Your task to perform on an android device: turn notification dots on Image 0: 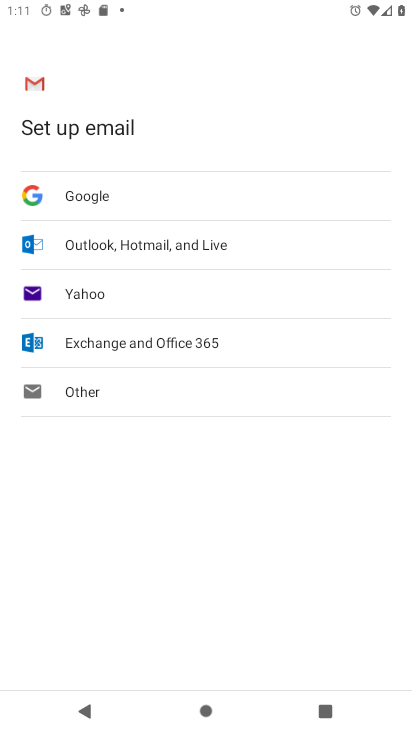
Step 0: press home button
Your task to perform on an android device: turn notification dots on Image 1: 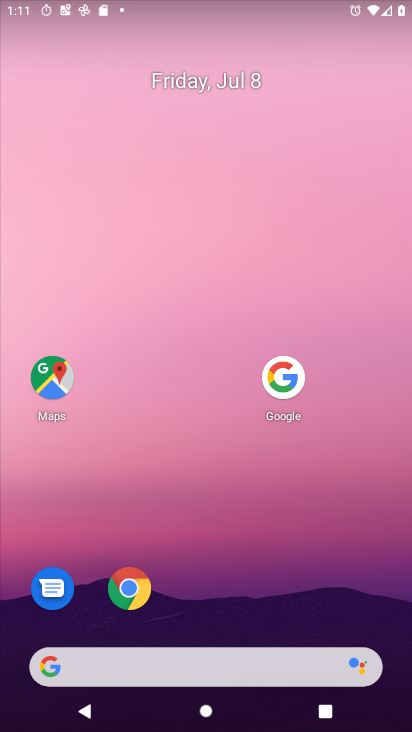
Step 1: drag from (200, 637) to (275, 94)
Your task to perform on an android device: turn notification dots on Image 2: 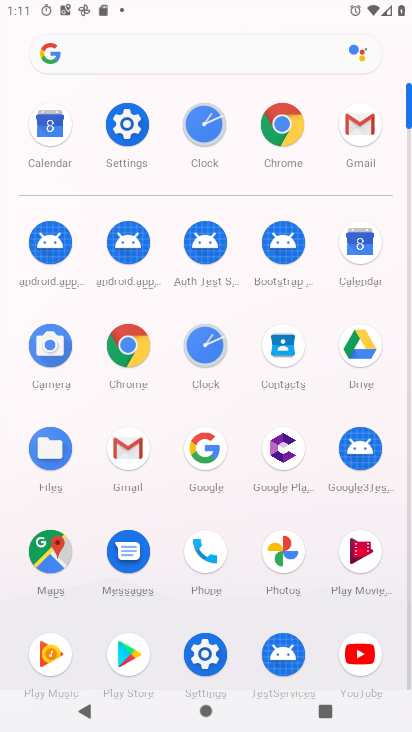
Step 2: click (118, 125)
Your task to perform on an android device: turn notification dots on Image 3: 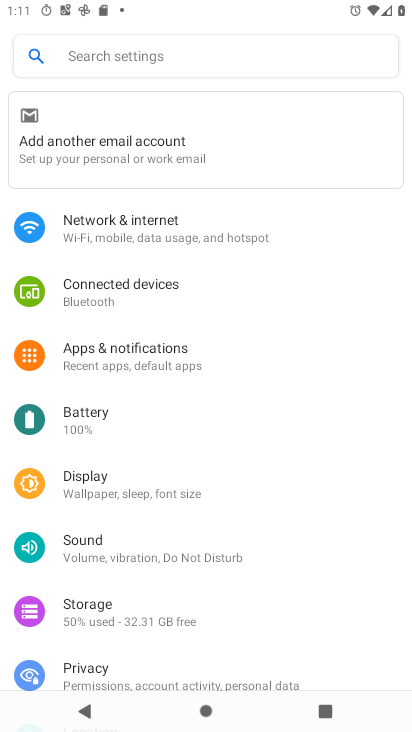
Step 3: click (129, 352)
Your task to perform on an android device: turn notification dots on Image 4: 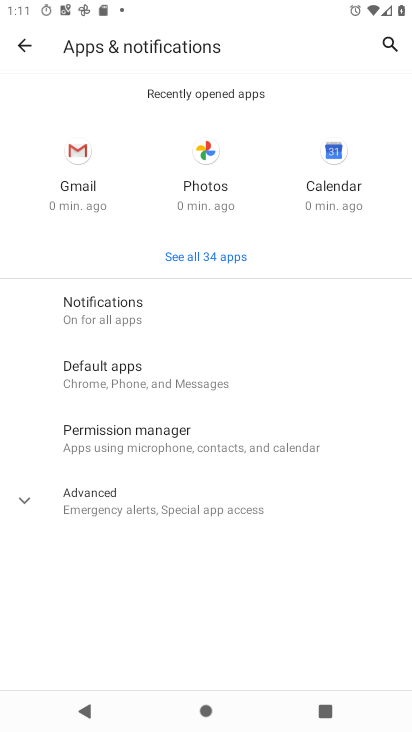
Step 4: click (130, 314)
Your task to perform on an android device: turn notification dots on Image 5: 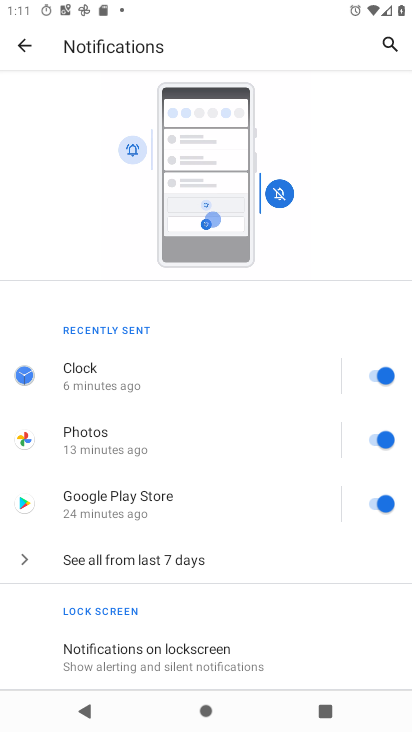
Step 5: drag from (203, 620) to (242, 183)
Your task to perform on an android device: turn notification dots on Image 6: 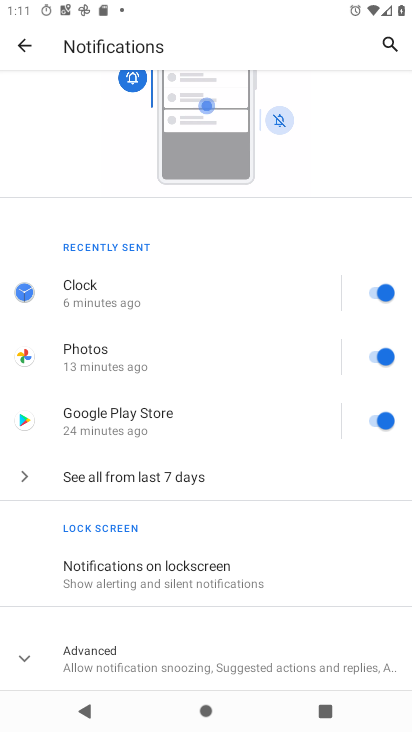
Step 6: click (158, 666)
Your task to perform on an android device: turn notification dots on Image 7: 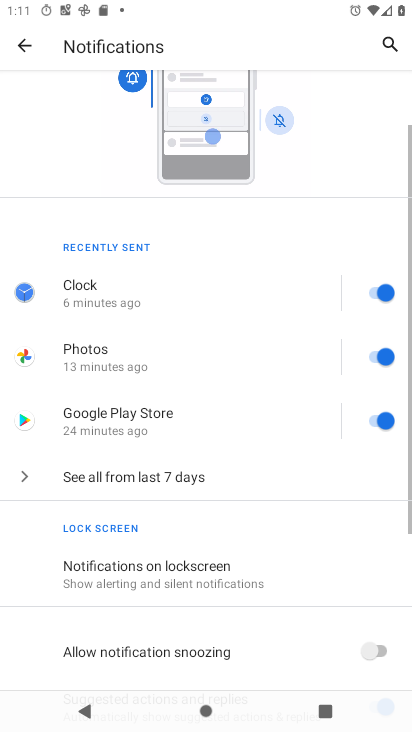
Step 7: drag from (181, 605) to (303, 16)
Your task to perform on an android device: turn notification dots on Image 8: 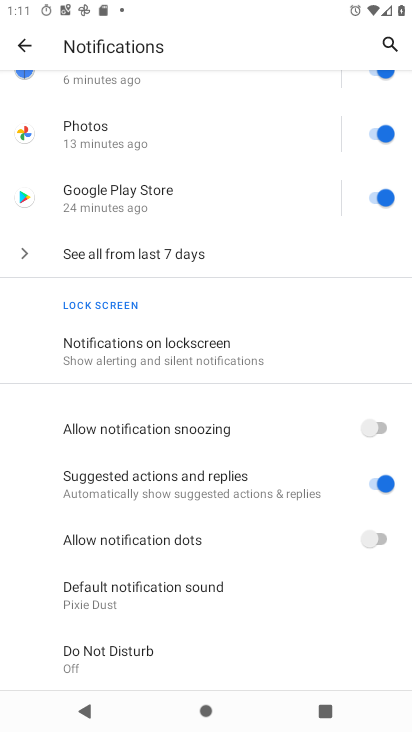
Step 8: click (380, 536)
Your task to perform on an android device: turn notification dots on Image 9: 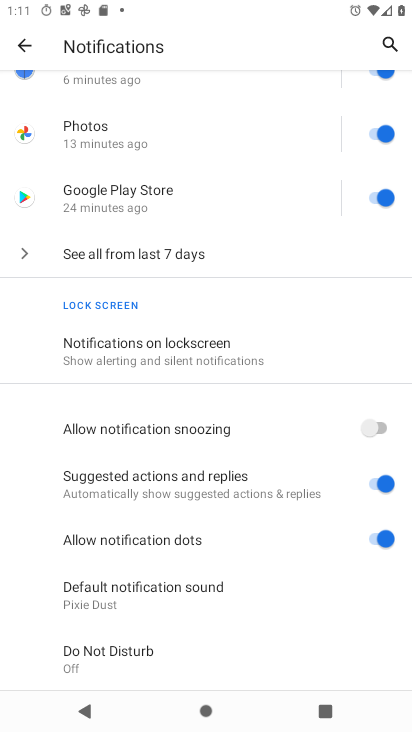
Step 9: task complete